Your task to perform on an android device: What's the weather today? Image 0: 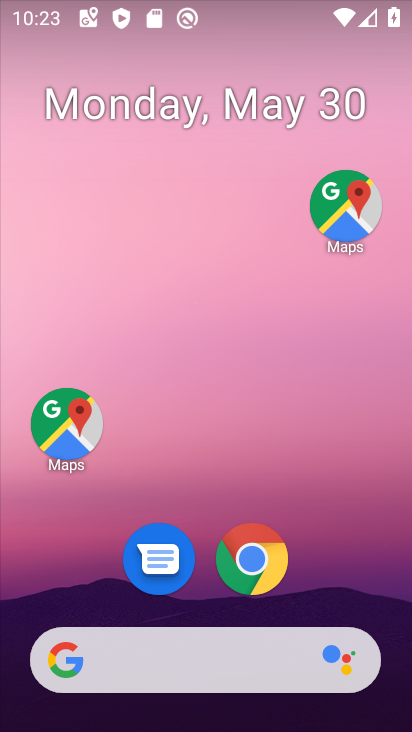
Step 0: click (253, 559)
Your task to perform on an android device: What's the weather today? Image 1: 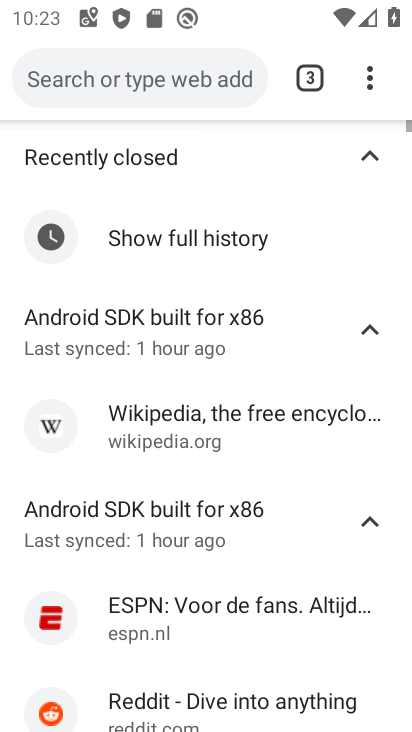
Step 1: click (176, 73)
Your task to perform on an android device: What's the weather today? Image 2: 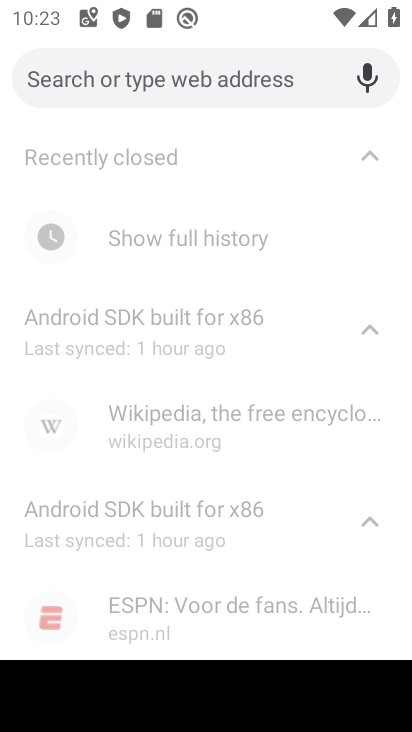
Step 2: type "weather"
Your task to perform on an android device: What's the weather today? Image 3: 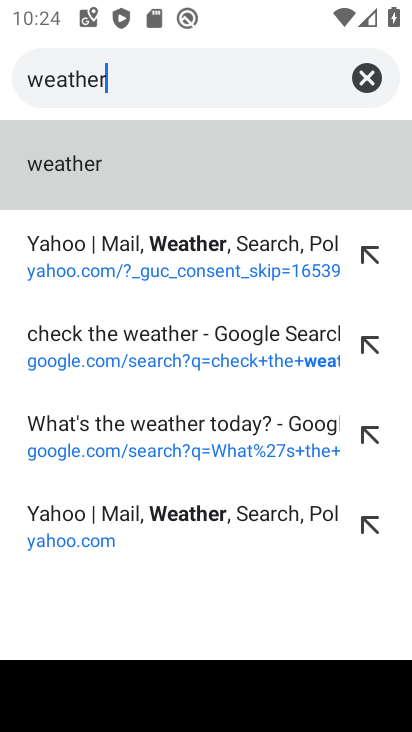
Step 3: click (61, 175)
Your task to perform on an android device: What's the weather today? Image 4: 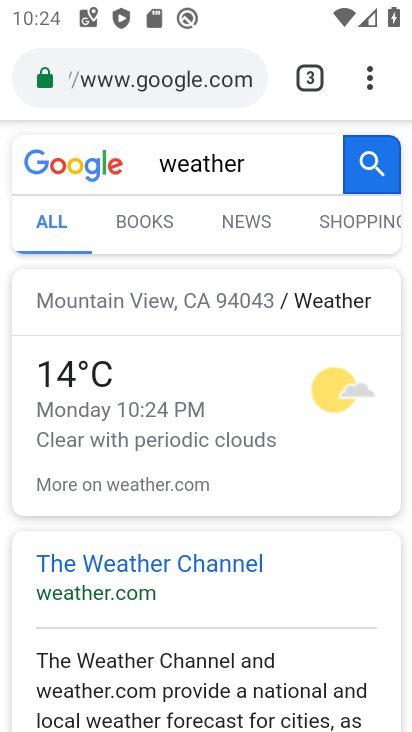
Step 4: task complete